Your task to perform on an android device: Google the capital of Brazil Image 0: 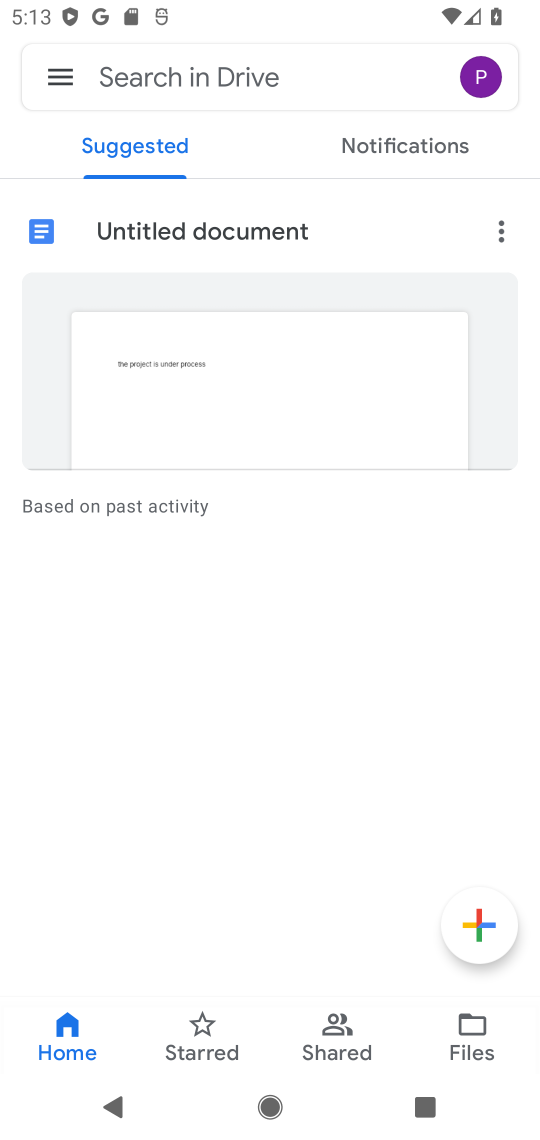
Step 0: press home button
Your task to perform on an android device: Google the capital of Brazil Image 1: 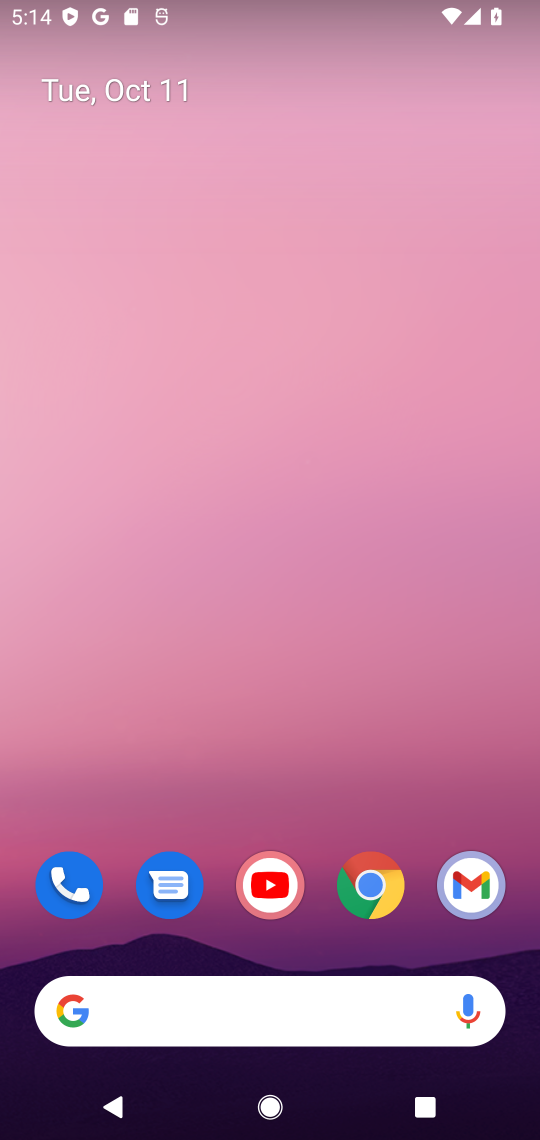
Step 1: drag from (301, 585) to (400, 30)
Your task to perform on an android device: Google the capital of Brazil Image 2: 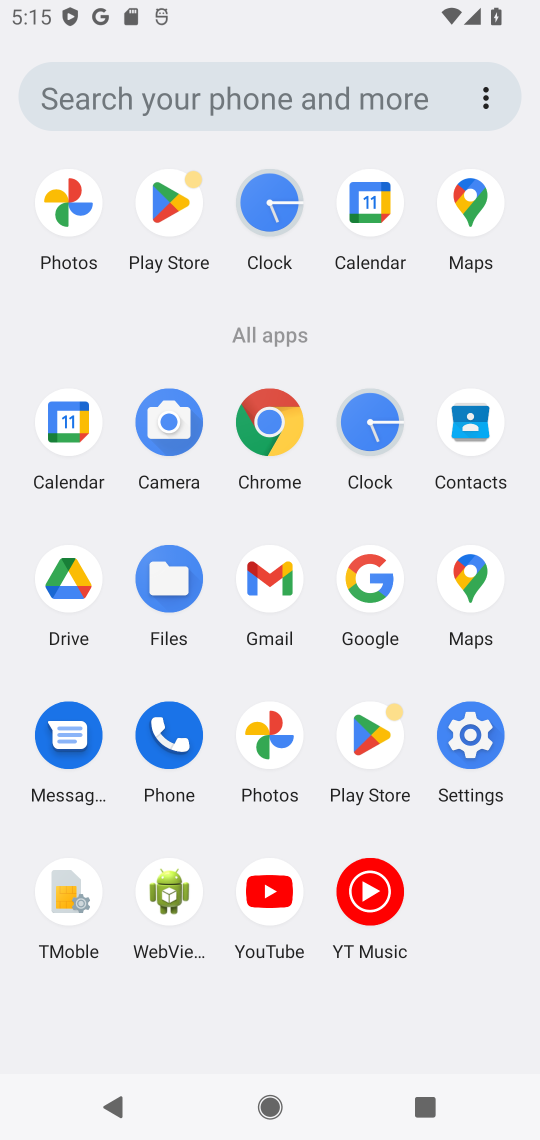
Step 2: click (266, 456)
Your task to perform on an android device: Google the capital of Brazil Image 3: 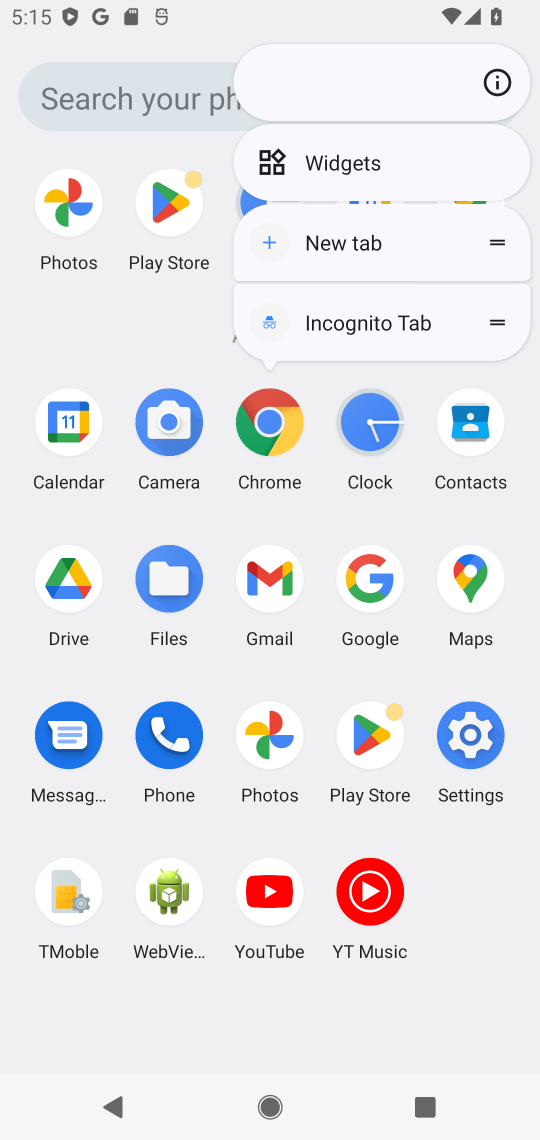
Step 3: click (279, 411)
Your task to perform on an android device: Google the capital of Brazil Image 4: 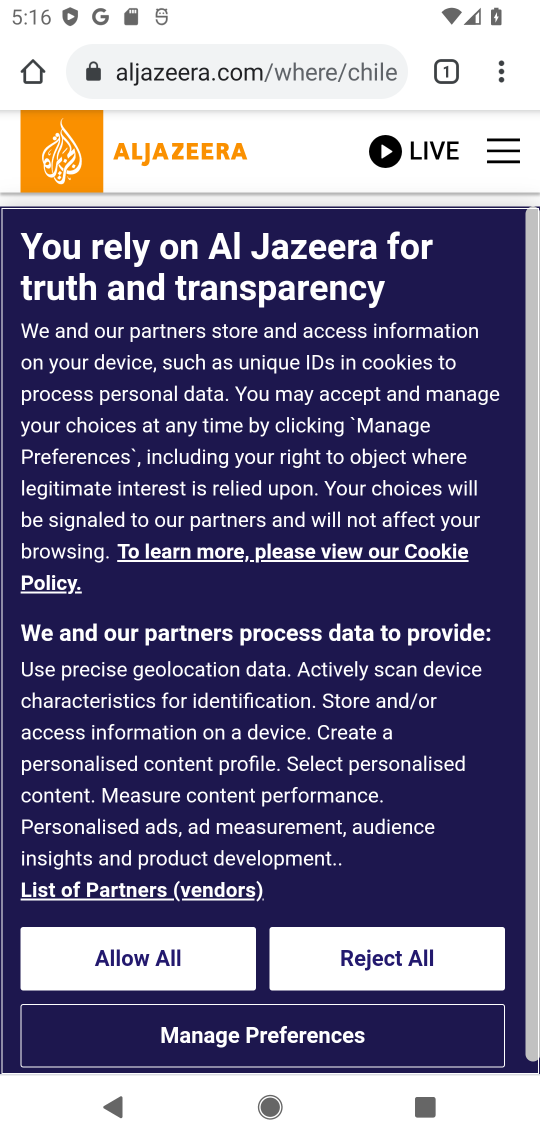
Step 4: click (312, 65)
Your task to perform on an android device: Google the capital of Brazil Image 5: 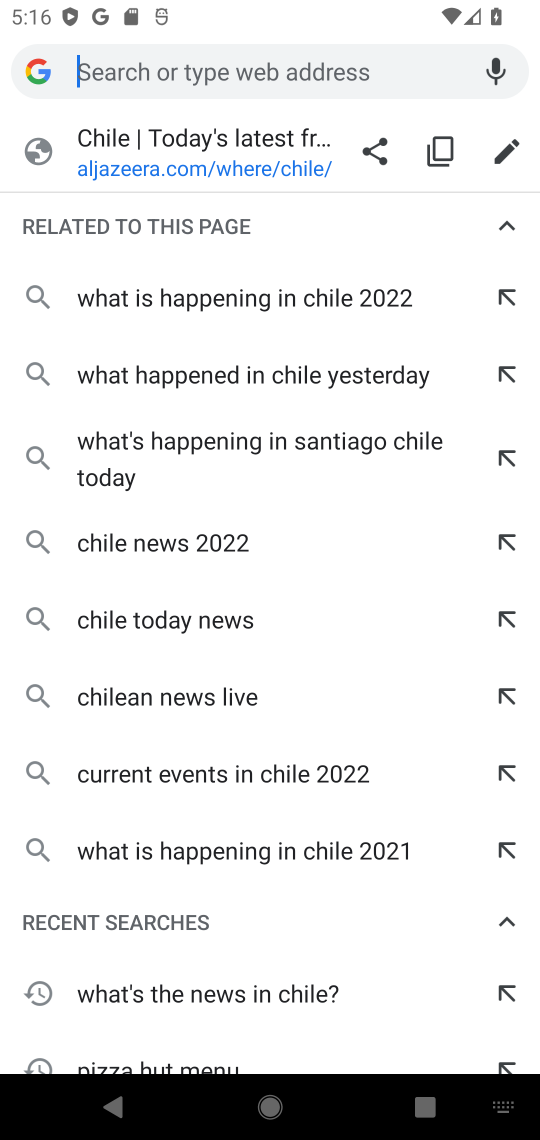
Step 5: type "capital of Brazil"
Your task to perform on an android device: Google the capital of Brazil Image 6: 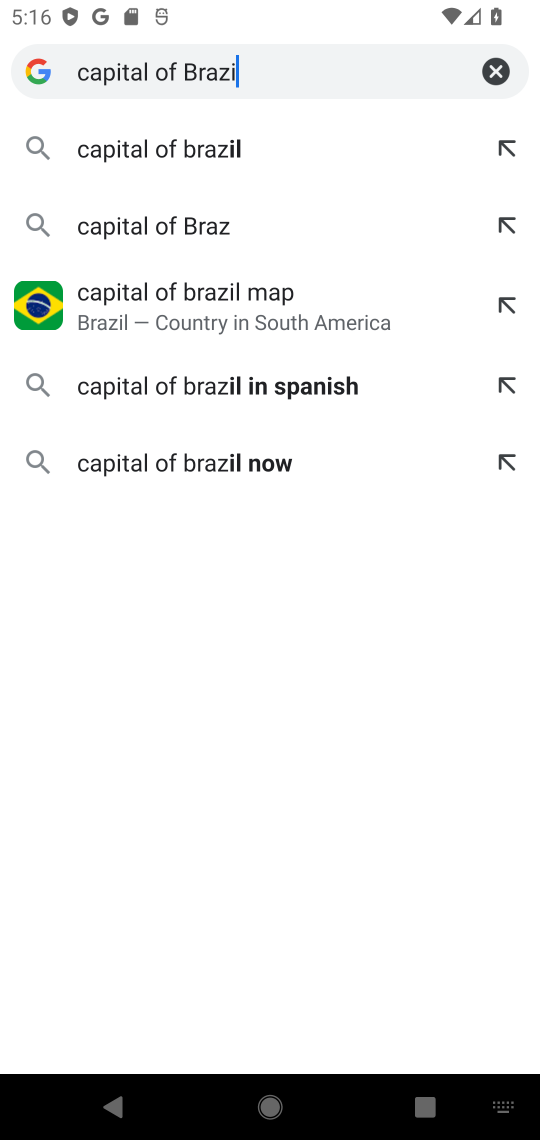
Step 6: press enter
Your task to perform on an android device: Google the capital of Brazil Image 7: 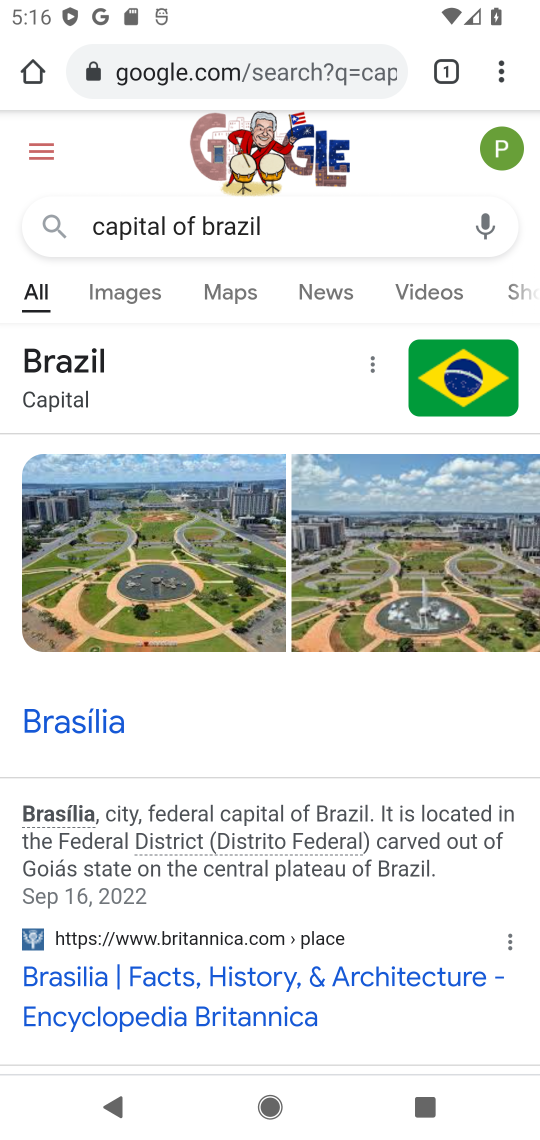
Step 7: task complete